Your task to perform on an android device: Clear all items from cart on ebay.com. Search for bose soundsport free on ebay.com, select the first entry, and add it to the cart. Image 0: 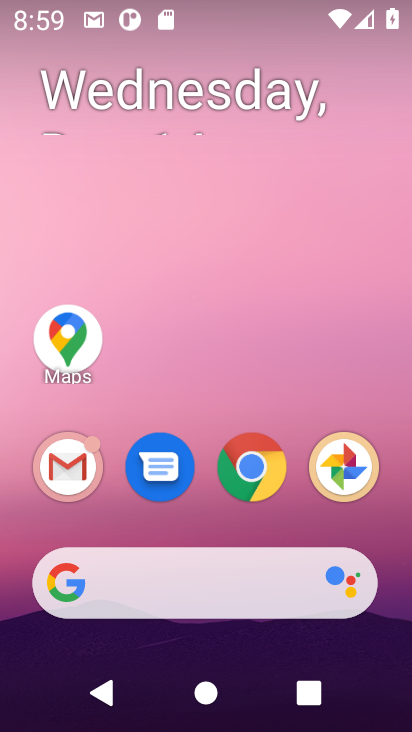
Step 0: click (252, 489)
Your task to perform on an android device: Clear all items from cart on ebay.com. Search for bose soundsport free on ebay.com, select the first entry, and add it to the cart. Image 1: 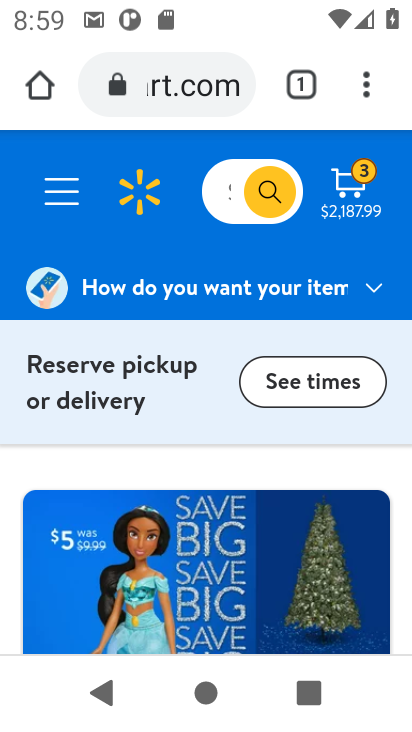
Step 1: click (236, 176)
Your task to perform on an android device: Clear all items from cart on ebay.com. Search for bose soundsport free on ebay.com, select the first entry, and add it to the cart. Image 2: 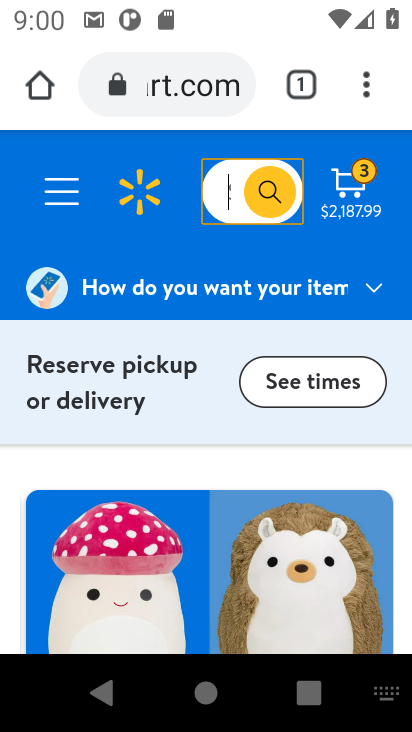
Step 2: type "ebay.com"
Your task to perform on an android device: Clear all items from cart on ebay.com. Search for bose soundsport free on ebay.com, select the first entry, and add it to the cart. Image 3: 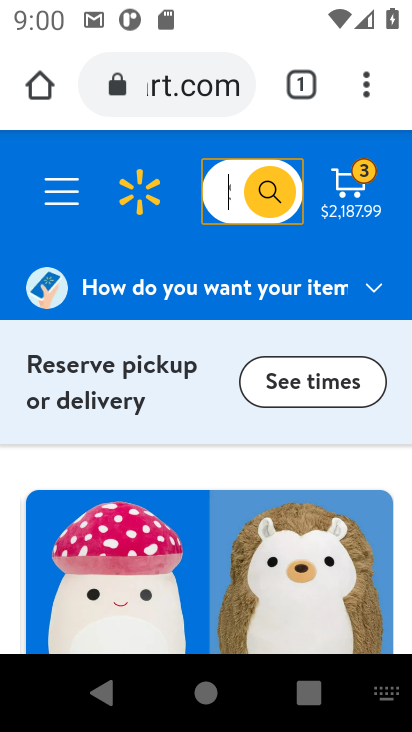
Step 3: click (199, 103)
Your task to perform on an android device: Clear all items from cart on ebay.com. Search for bose soundsport free on ebay.com, select the first entry, and add it to the cart. Image 4: 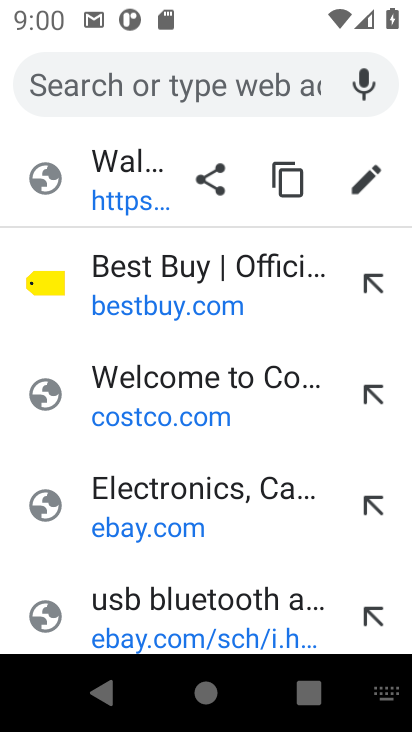
Step 4: click (169, 489)
Your task to perform on an android device: Clear all items from cart on ebay.com. Search for bose soundsport free on ebay.com, select the first entry, and add it to the cart. Image 5: 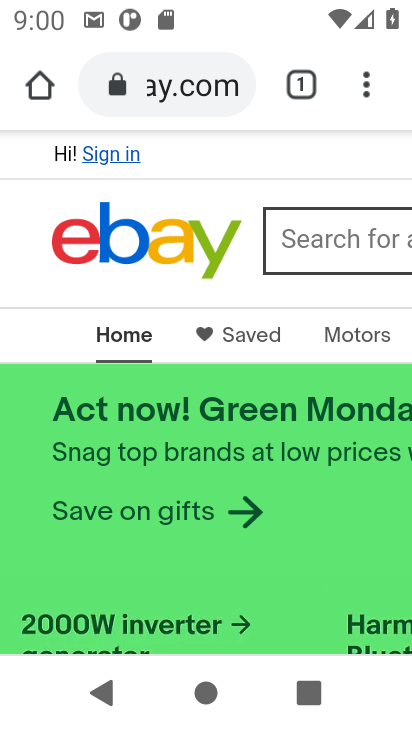
Step 5: click (317, 222)
Your task to perform on an android device: Clear all items from cart on ebay.com. Search for bose soundsport free on ebay.com, select the first entry, and add it to the cart. Image 6: 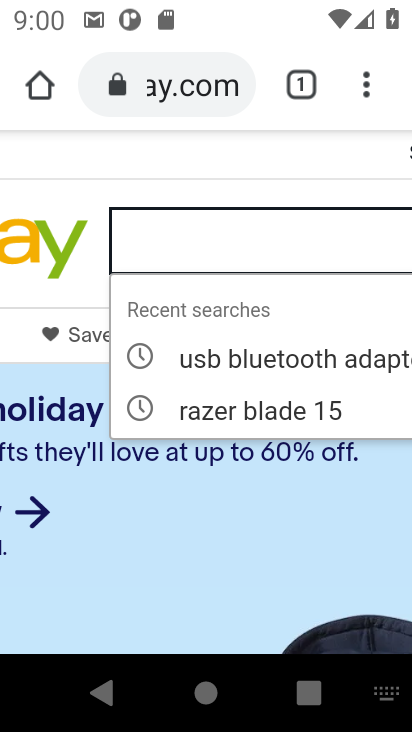
Step 6: type "bose soundsport"
Your task to perform on an android device: Clear all items from cart on ebay.com. Search for bose soundsport free on ebay.com, select the first entry, and add it to the cart. Image 7: 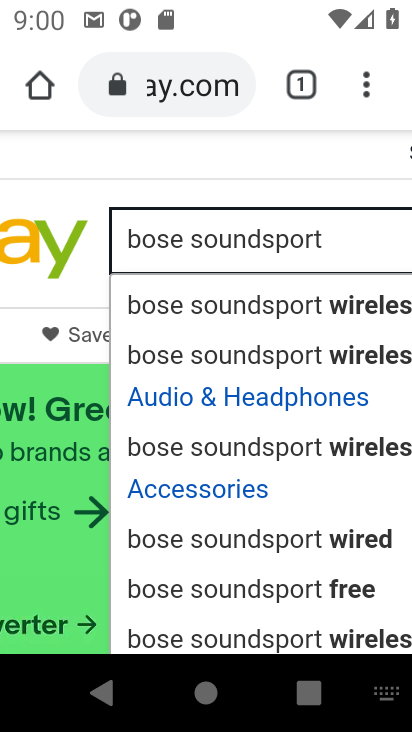
Step 7: click (165, 313)
Your task to perform on an android device: Clear all items from cart on ebay.com. Search for bose soundsport free on ebay.com, select the first entry, and add it to the cart. Image 8: 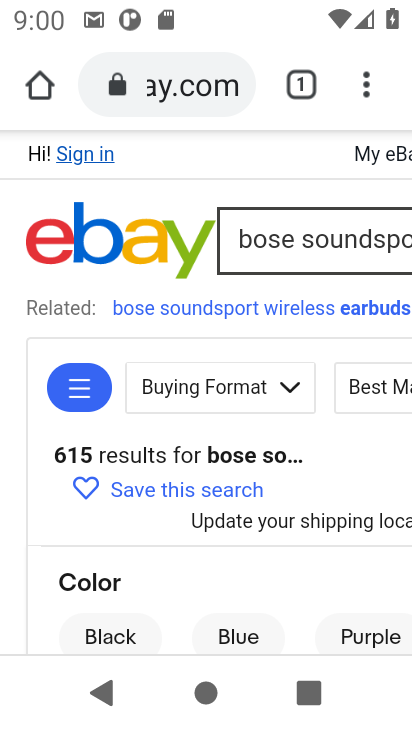
Step 8: task complete